Your task to perform on an android device: see creations saved in the google photos Image 0: 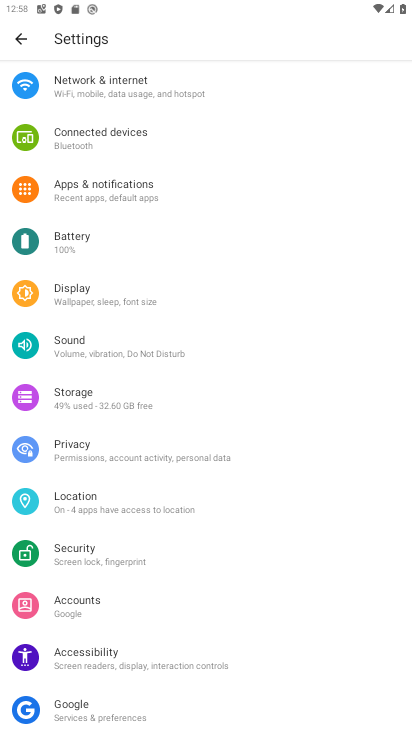
Step 0: press home button
Your task to perform on an android device: see creations saved in the google photos Image 1: 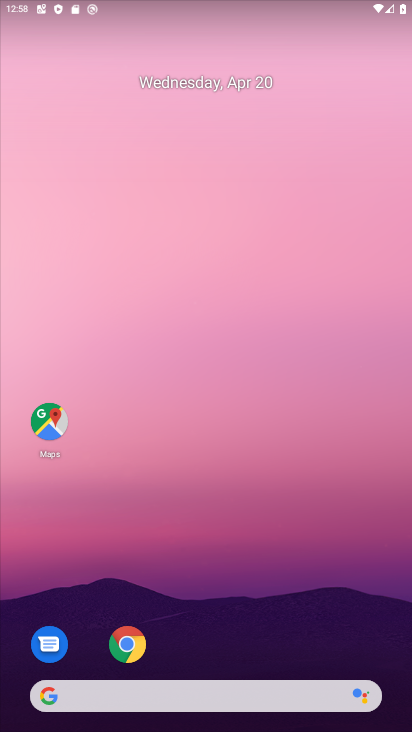
Step 1: drag from (234, 358) to (290, 106)
Your task to perform on an android device: see creations saved in the google photos Image 2: 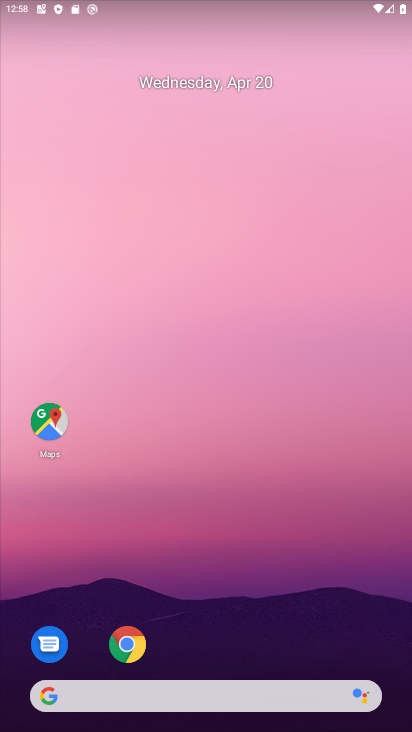
Step 2: drag from (239, 287) to (294, 94)
Your task to perform on an android device: see creations saved in the google photos Image 3: 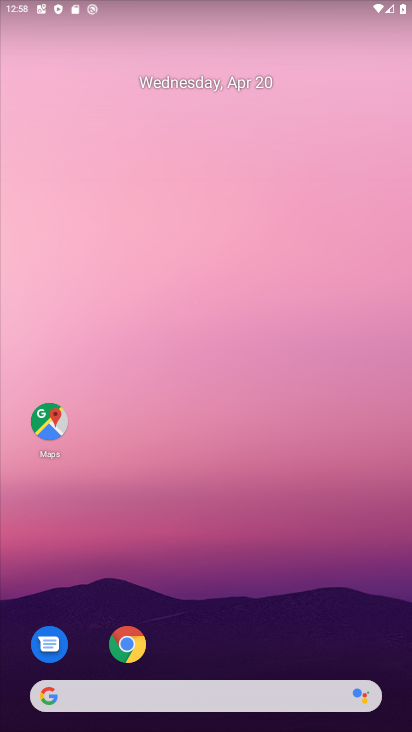
Step 3: drag from (198, 539) to (279, 24)
Your task to perform on an android device: see creations saved in the google photos Image 4: 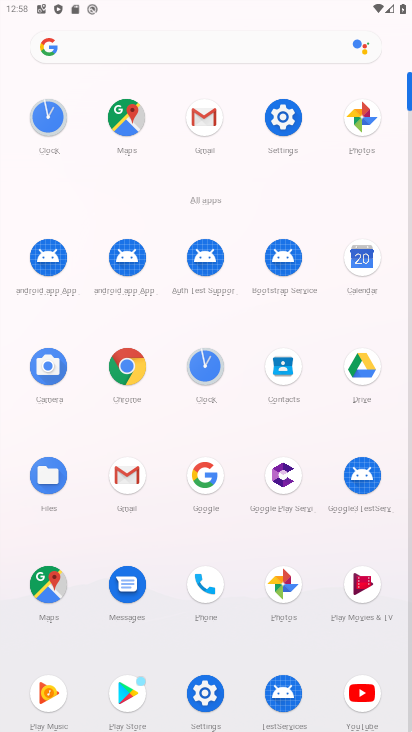
Step 4: click (357, 122)
Your task to perform on an android device: see creations saved in the google photos Image 5: 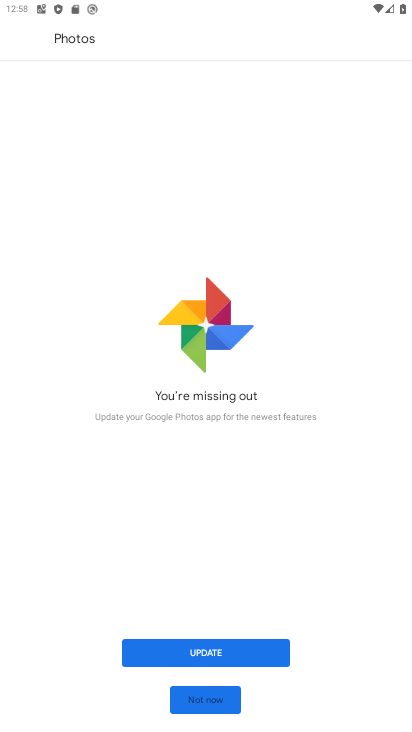
Step 5: click (203, 694)
Your task to perform on an android device: see creations saved in the google photos Image 6: 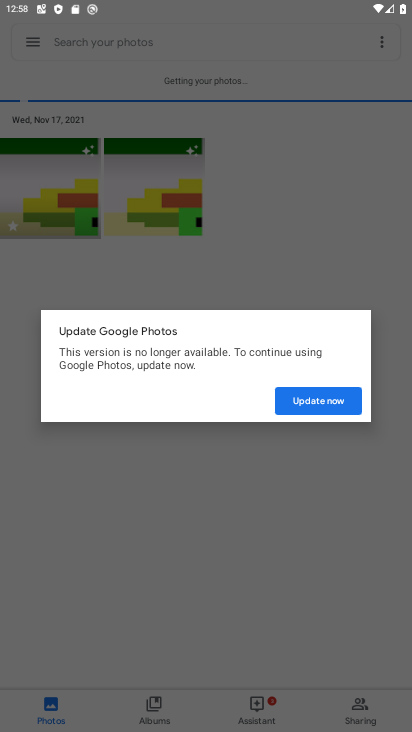
Step 6: click (306, 391)
Your task to perform on an android device: see creations saved in the google photos Image 7: 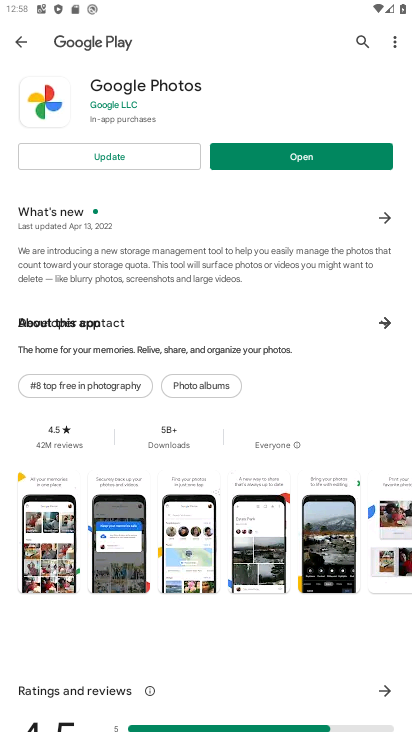
Step 7: click (154, 154)
Your task to perform on an android device: see creations saved in the google photos Image 8: 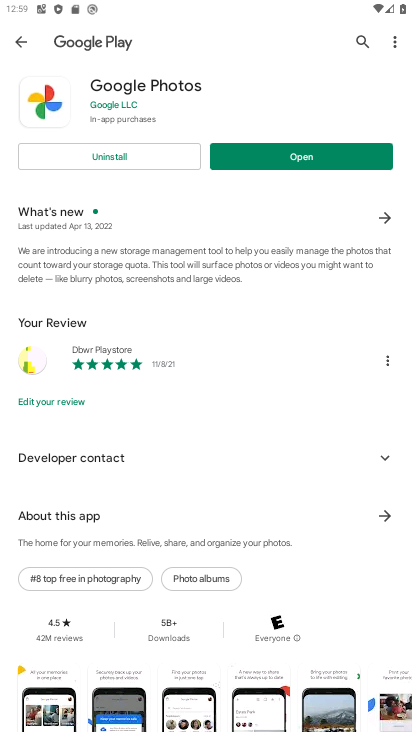
Step 8: click (264, 152)
Your task to perform on an android device: see creations saved in the google photos Image 9: 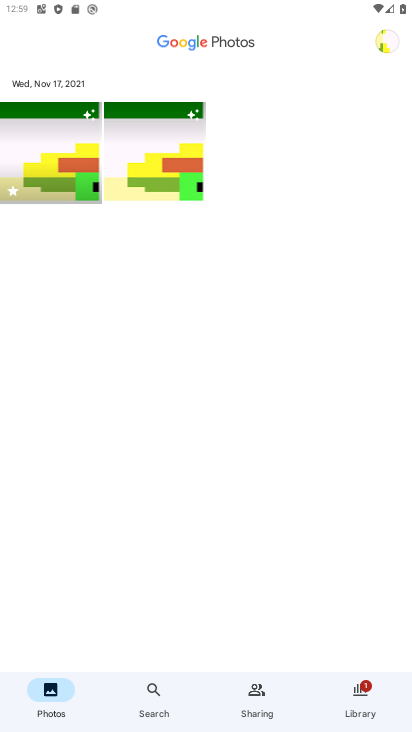
Step 9: click (359, 699)
Your task to perform on an android device: see creations saved in the google photos Image 10: 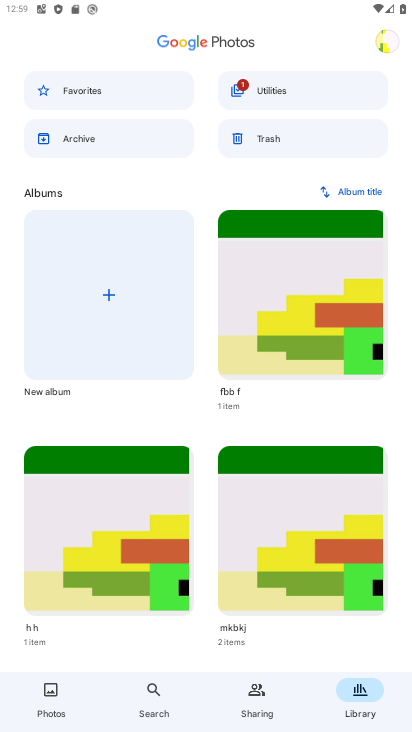
Step 10: task complete